Your task to perform on an android device: Go to Wikipedia Image 0: 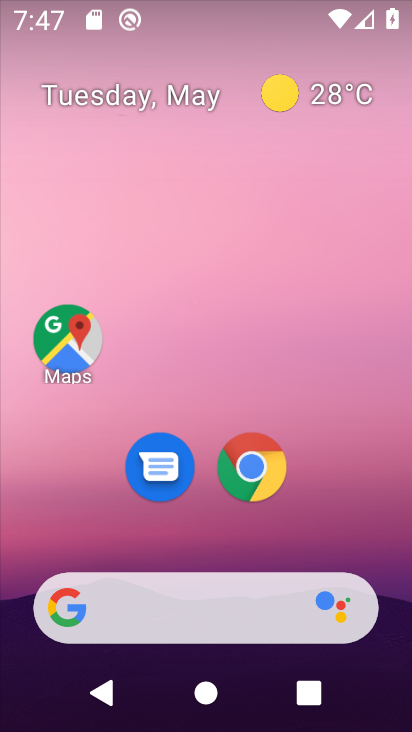
Step 0: click (251, 473)
Your task to perform on an android device: Go to Wikipedia Image 1: 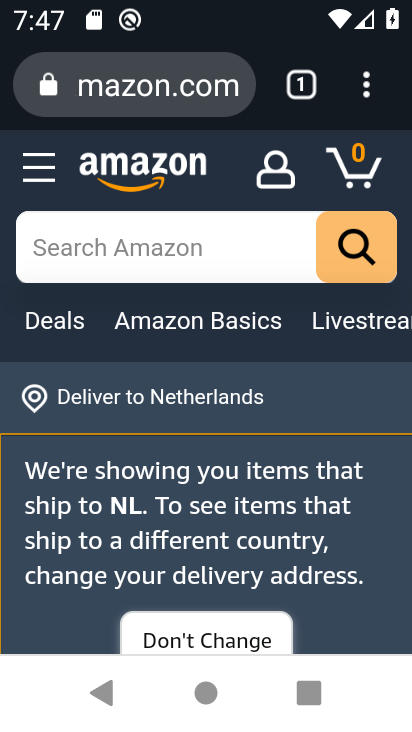
Step 1: click (241, 87)
Your task to perform on an android device: Go to Wikipedia Image 2: 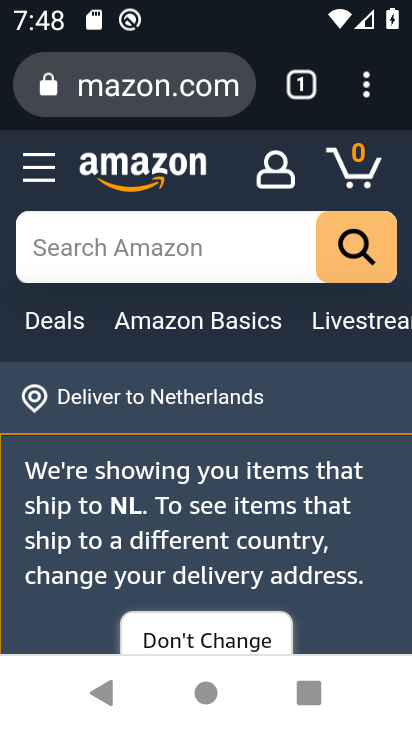
Step 2: click (232, 88)
Your task to perform on an android device: Go to Wikipedia Image 3: 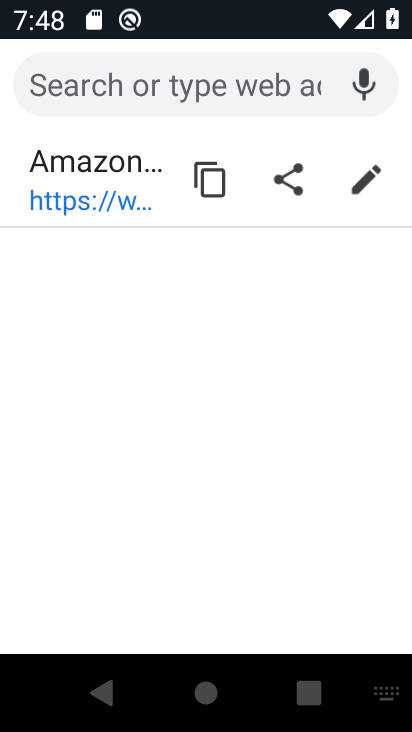
Step 3: type "Wikipedia"
Your task to perform on an android device: Go to Wikipedia Image 4: 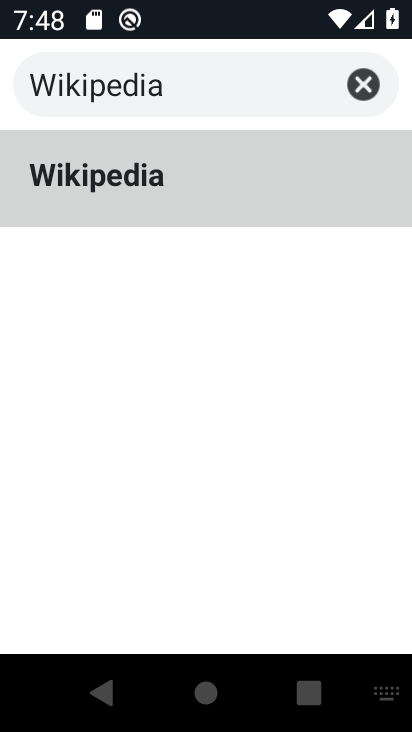
Step 4: click (108, 168)
Your task to perform on an android device: Go to Wikipedia Image 5: 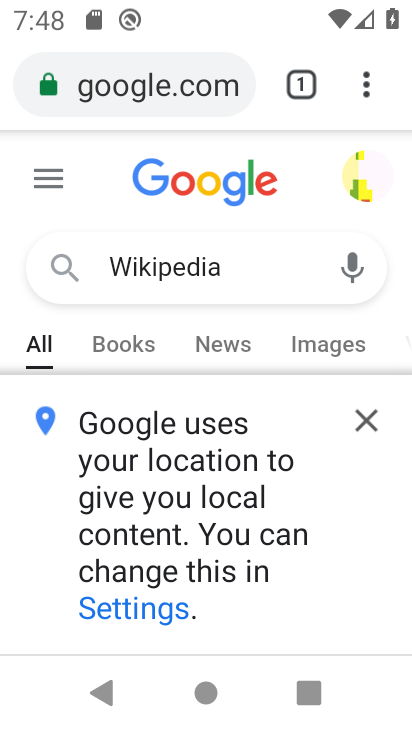
Step 5: click (360, 417)
Your task to perform on an android device: Go to Wikipedia Image 6: 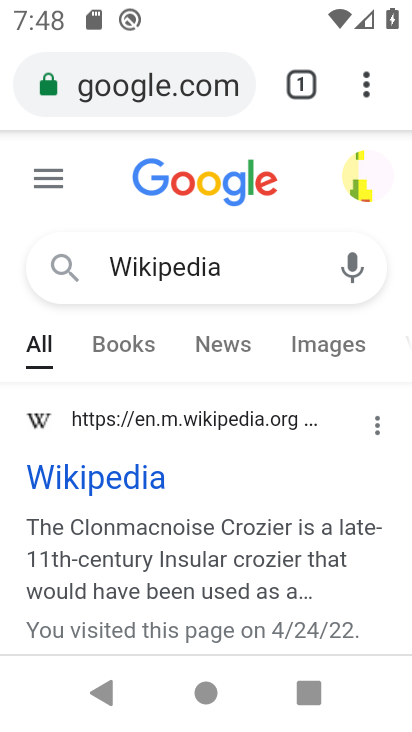
Step 6: task complete